Your task to perform on an android device: check android version Image 0: 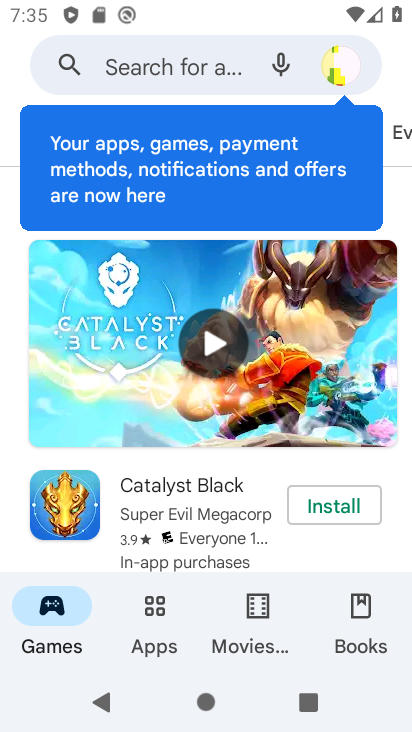
Step 0: press home button
Your task to perform on an android device: check android version Image 1: 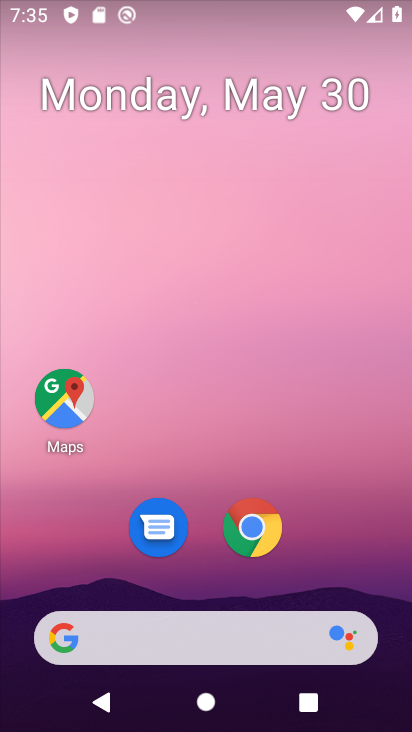
Step 1: drag from (213, 560) to (293, 57)
Your task to perform on an android device: check android version Image 2: 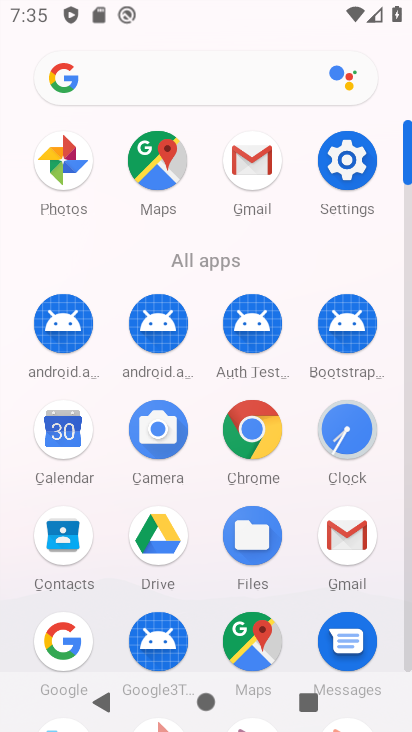
Step 2: click (346, 167)
Your task to perform on an android device: check android version Image 3: 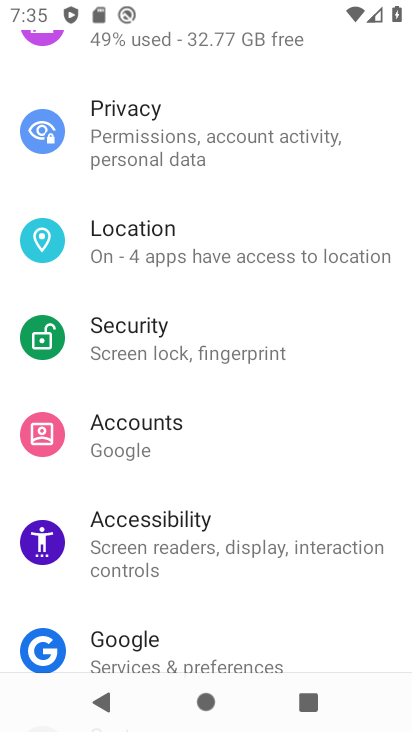
Step 3: drag from (214, 598) to (239, 26)
Your task to perform on an android device: check android version Image 4: 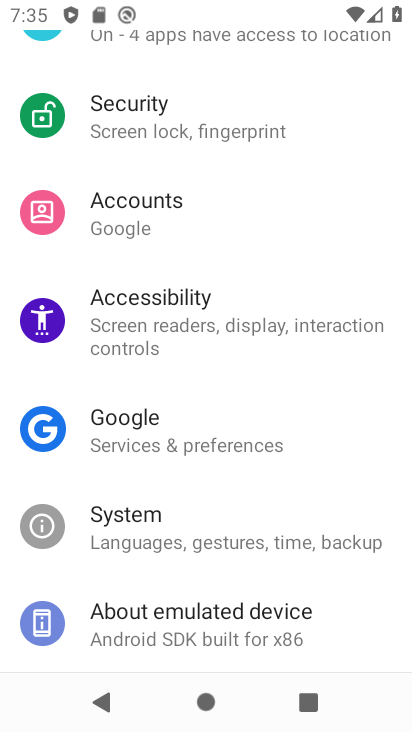
Step 4: drag from (233, 585) to (242, 327)
Your task to perform on an android device: check android version Image 5: 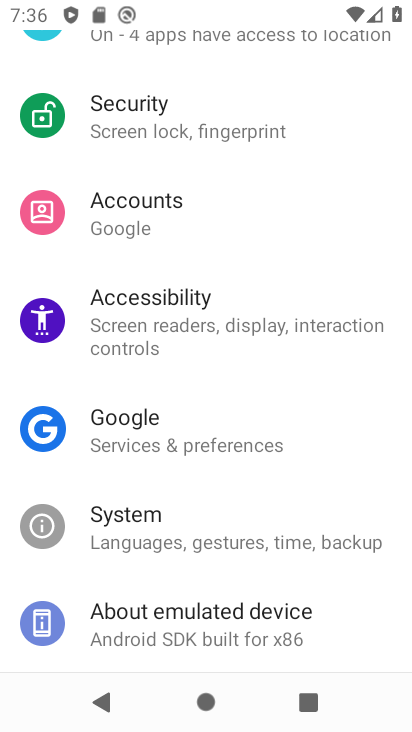
Step 5: click (179, 606)
Your task to perform on an android device: check android version Image 6: 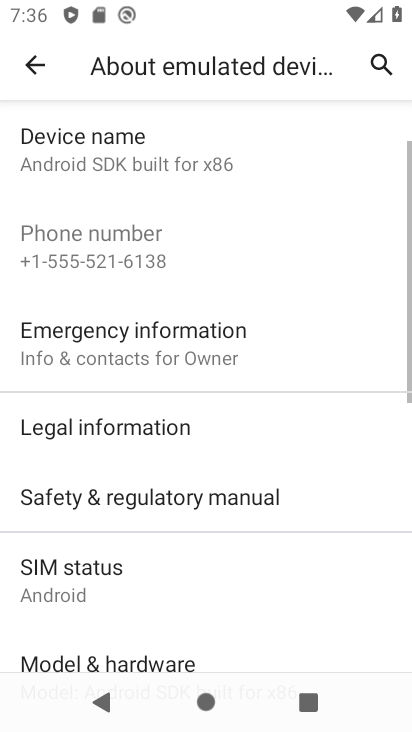
Step 6: drag from (195, 623) to (204, 61)
Your task to perform on an android device: check android version Image 7: 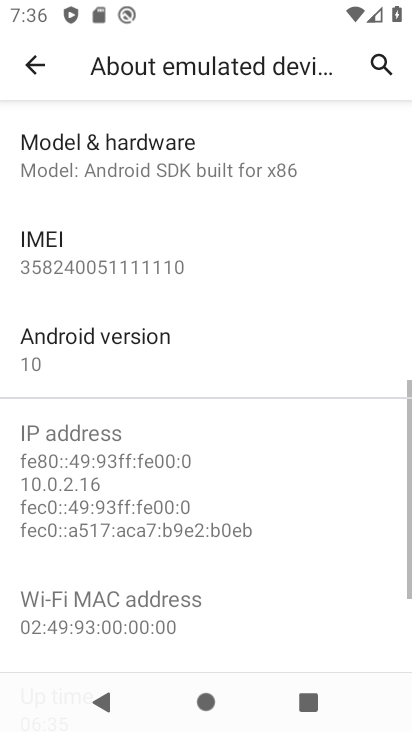
Step 7: click (105, 321)
Your task to perform on an android device: check android version Image 8: 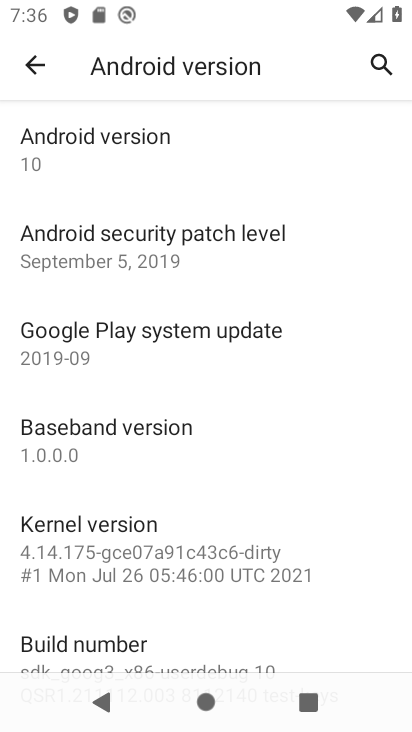
Step 8: task complete